Your task to perform on an android device: Go to settings Image 0: 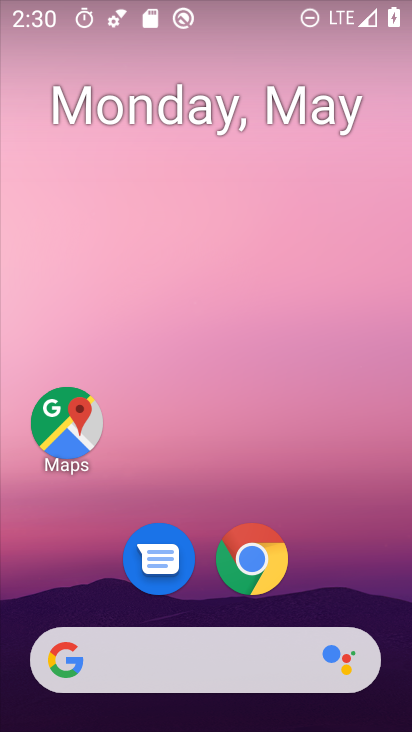
Step 0: drag from (392, 599) to (405, 5)
Your task to perform on an android device: Go to settings Image 1: 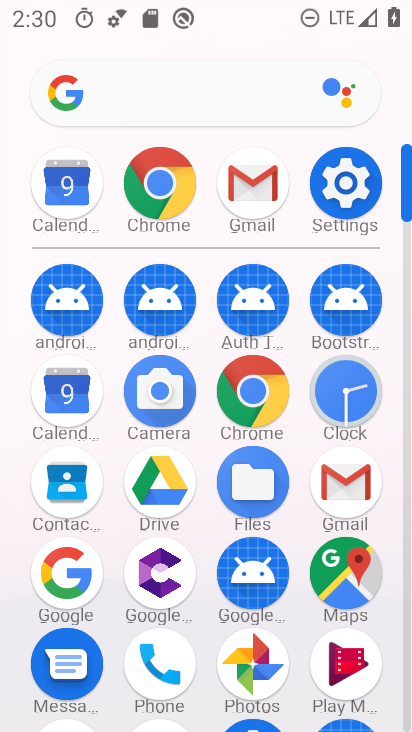
Step 1: click (346, 187)
Your task to perform on an android device: Go to settings Image 2: 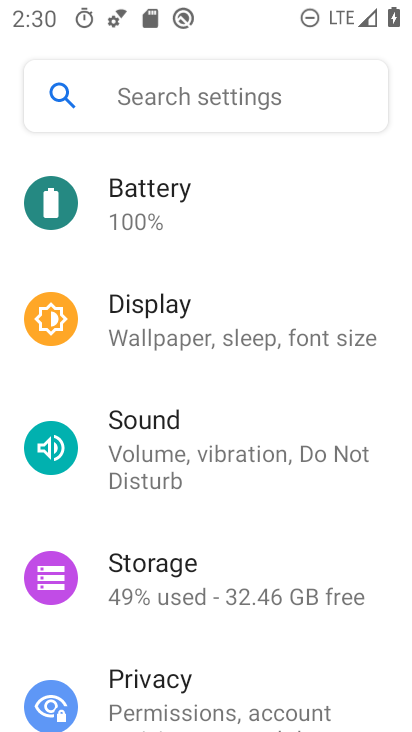
Step 2: task complete